Your task to perform on an android device: toggle pop-ups in chrome Image 0: 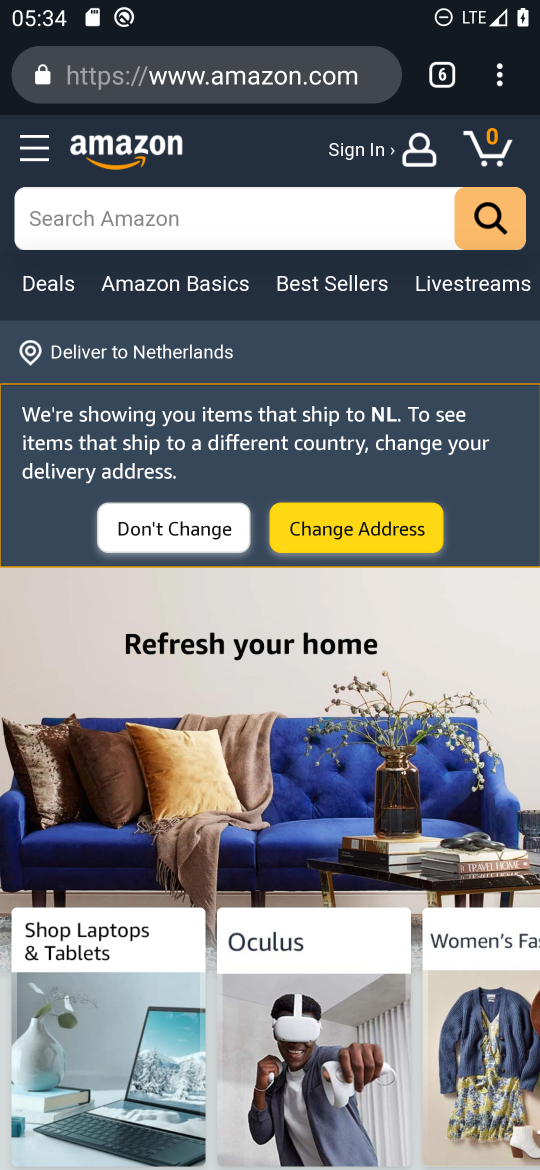
Step 0: press home button
Your task to perform on an android device: toggle pop-ups in chrome Image 1: 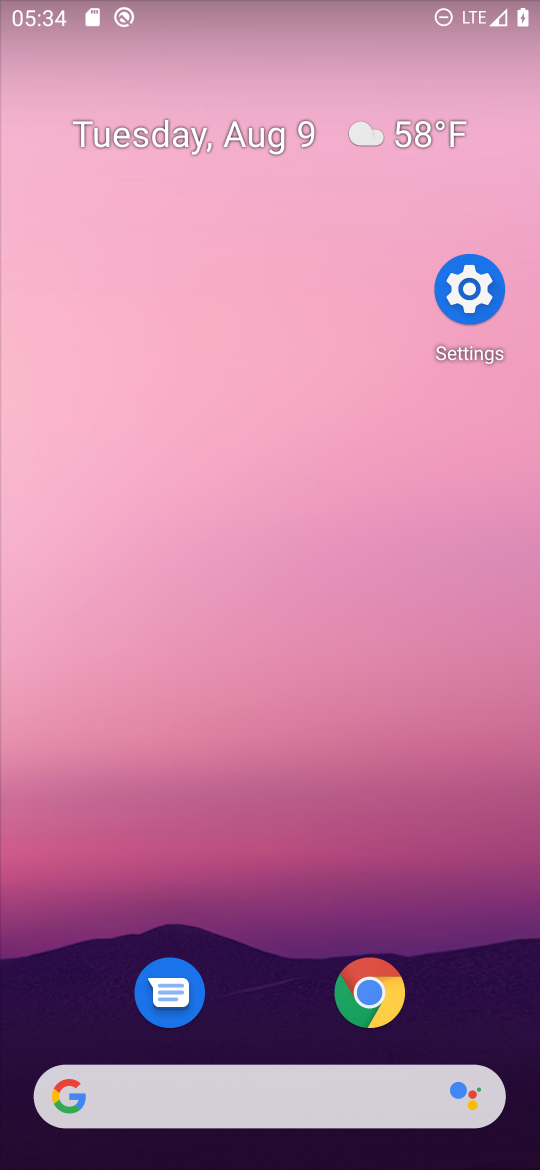
Step 1: drag from (386, 1080) to (470, 313)
Your task to perform on an android device: toggle pop-ups in chrome Image 2: 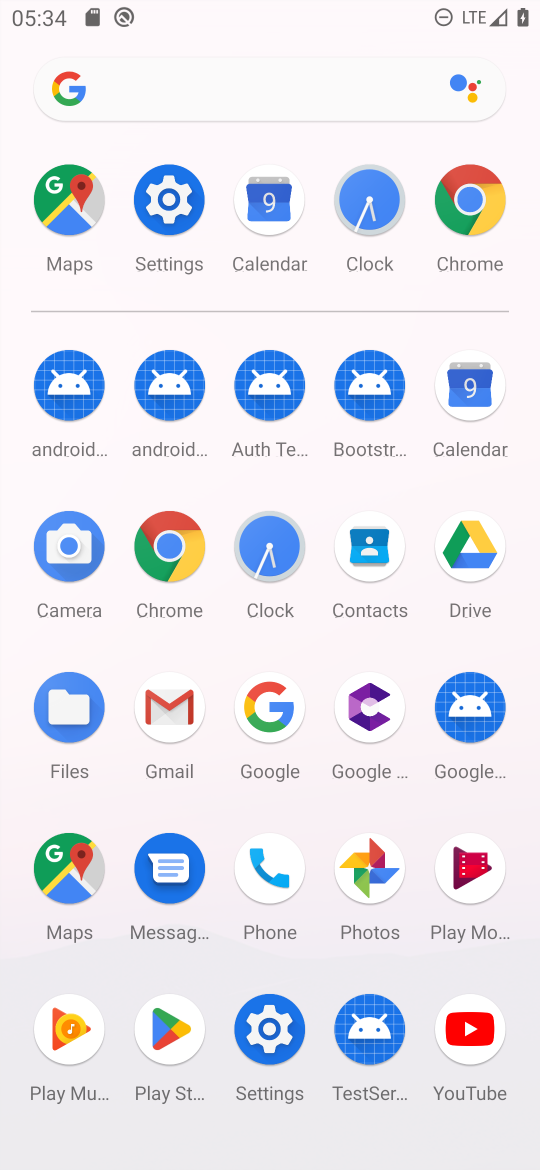
Step 2: click (167, 545)
Your task to perform on an android device: toggle pop-ups in chrome Image 3: 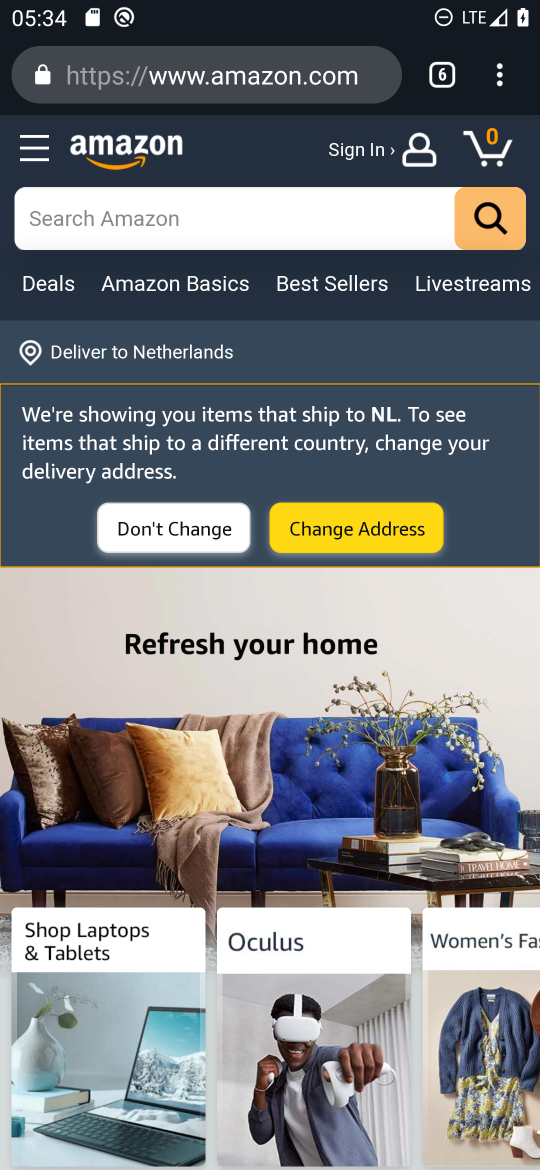
Step 3: click (498, 70)
Your task to perform on an android device: toggle pop-ups in chrome Image 4: 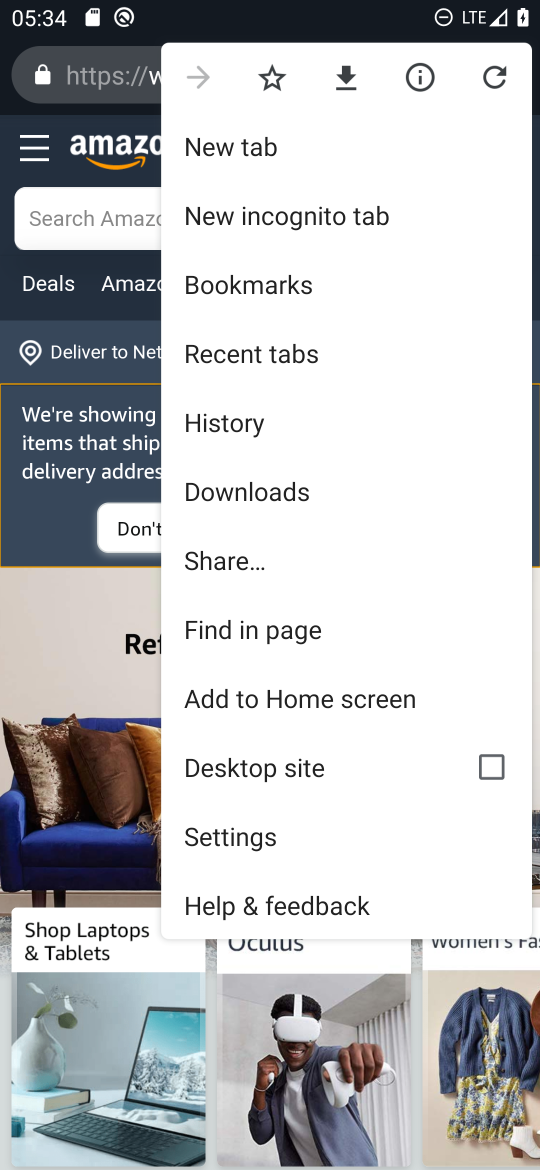
Step 4: click (199, 844)
Your task to perform on an android device: toggle pop-ups in chrome Image 5: 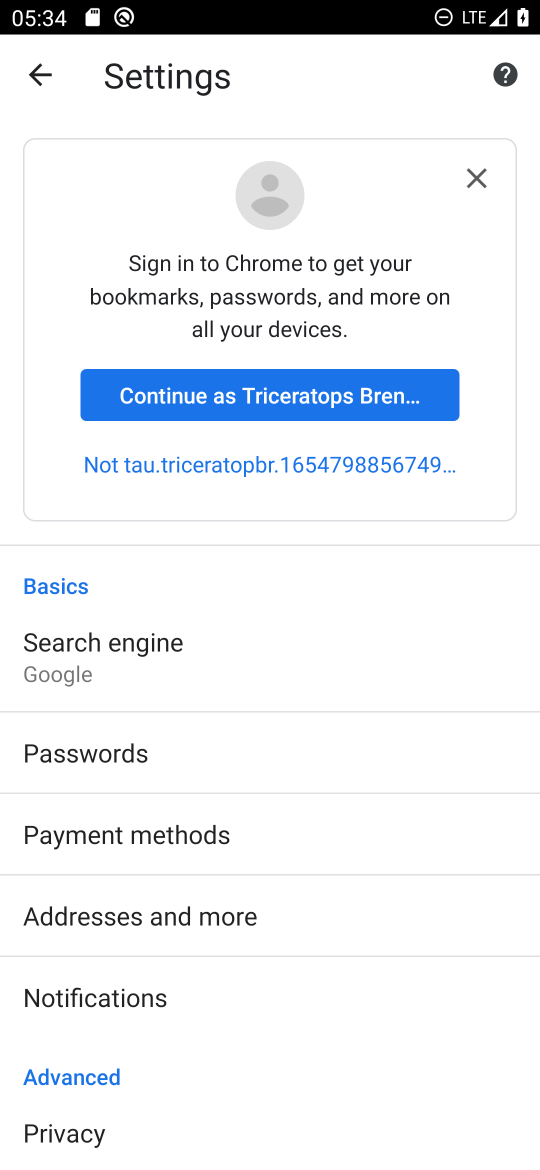
Step 5: drag from (267, 1052) to (179, 540)
Your task to perform on an android device: toggle pop-ups in chrome Image 6: 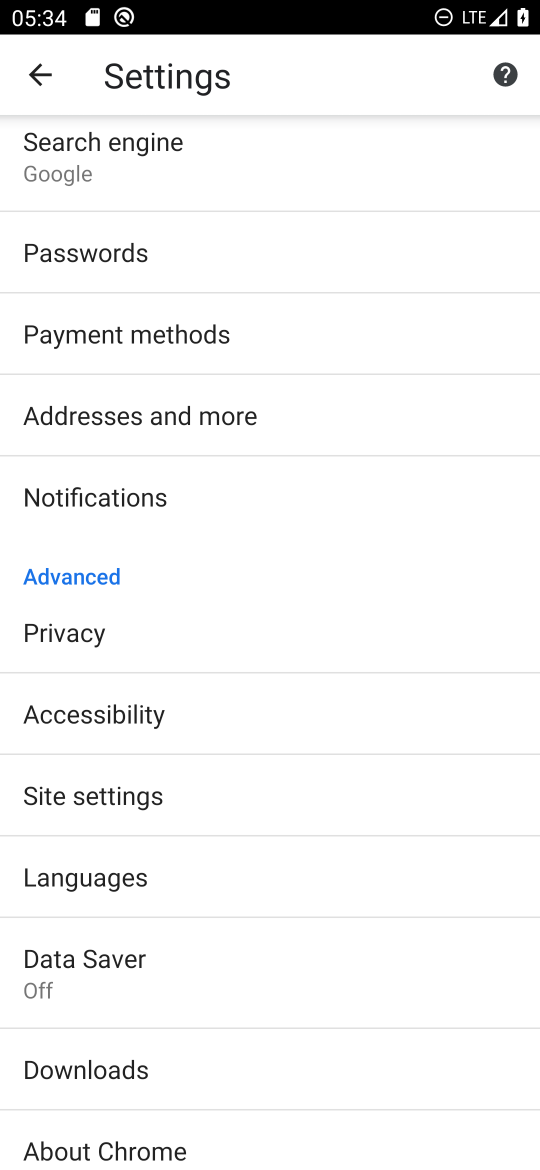
Step 6: click (126, 791)
Your task to perform on an android device: toggle pop-ups in chrome Image 7: 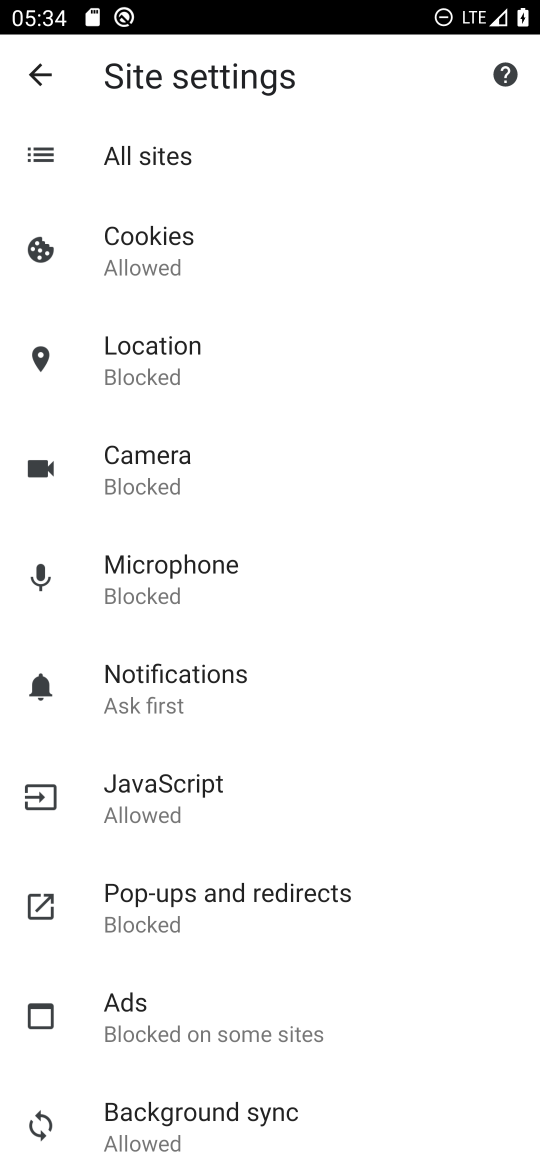
Step 7: click (301, 894)
Your task to perform on an android device: toggle pop-ups in chrome Image 8: 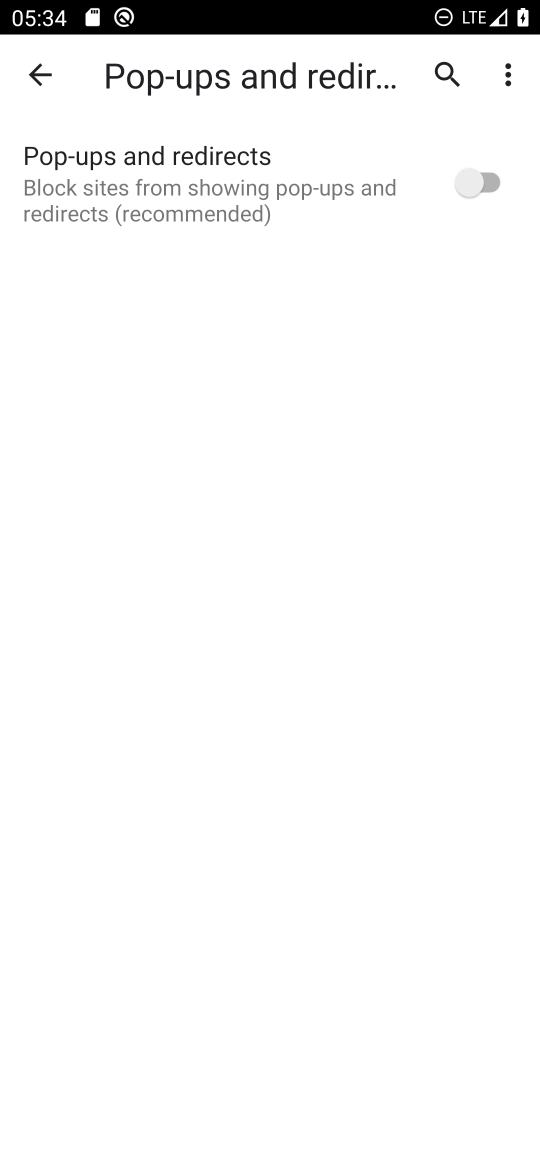
Step 8: click (493, 177)
Your task to perform on an android device: toggle pop-ups in chrome Image 9: 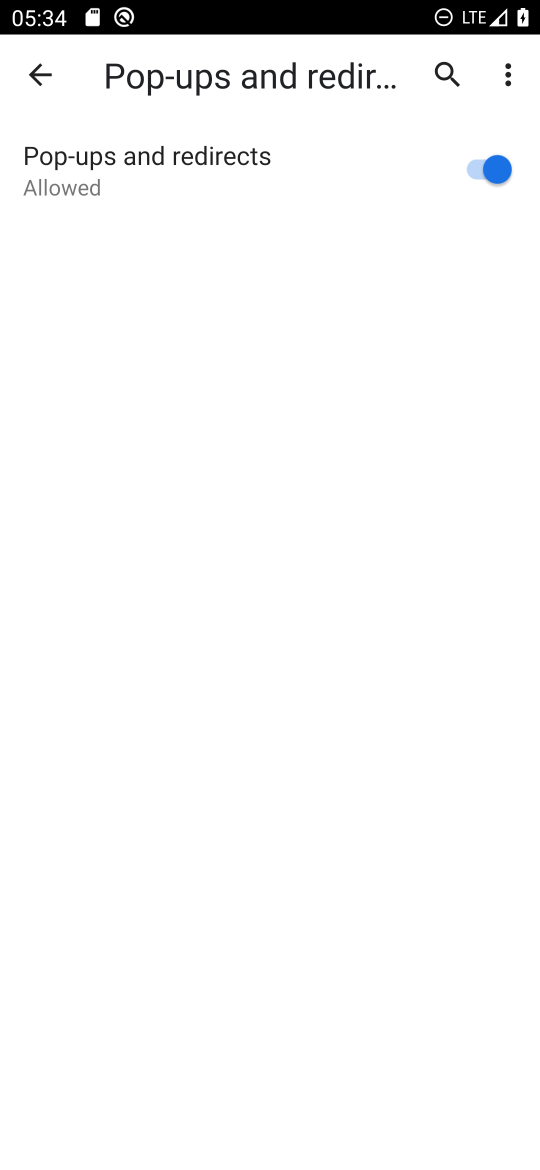
Step 9: task complete